Your task to perform on an android device: find snoozed emails in the gmail app Image 0: 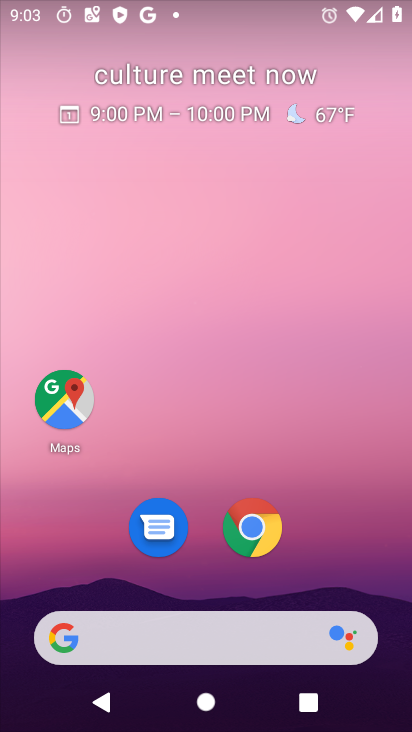
Step 0: drag from (229, 726) to (206, 157)
Your task to perform on an android device: find snoozed emails in the gmail app Image 1: 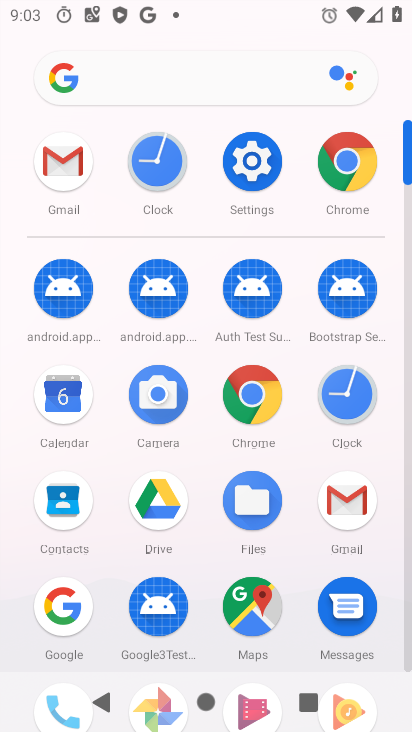
Step 1: click (347, 511)
Your task to perform on an android device: find snoozed emails in the gmail app Image 2: 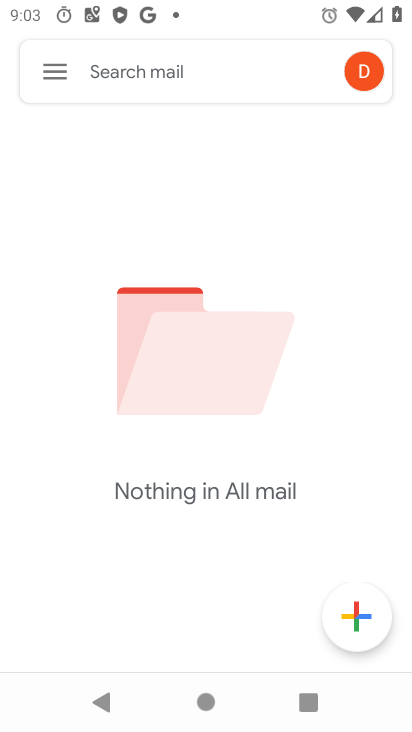
Step 2: click (58, 70)
Your task to perform on an android device: find snoozed emails in the gmail app Image 3: 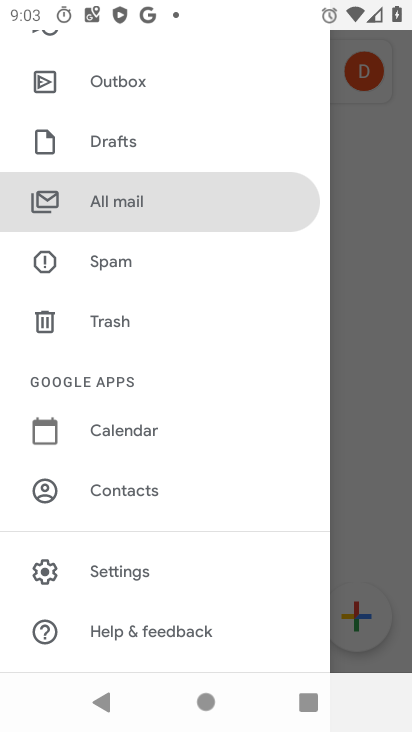
Step 3: drag from (162, 132) to (160, 480)
Your task to perform on an android device: find snoozed emails in the gmail app Image 4: 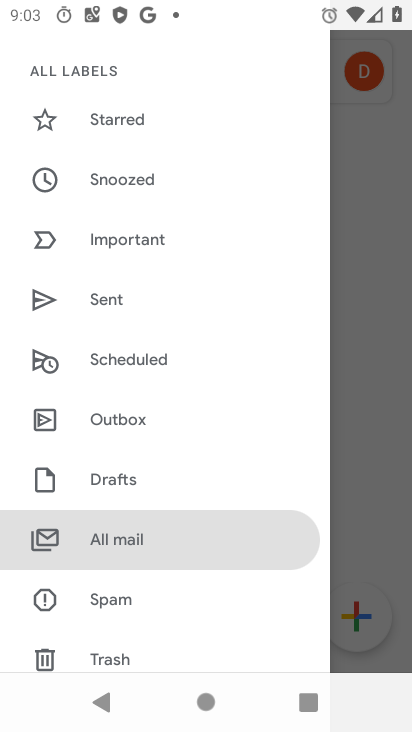
Step 4: click (116, 175)
Your task to perform on an android device: find snoozed emails in the gmail app Image 5: 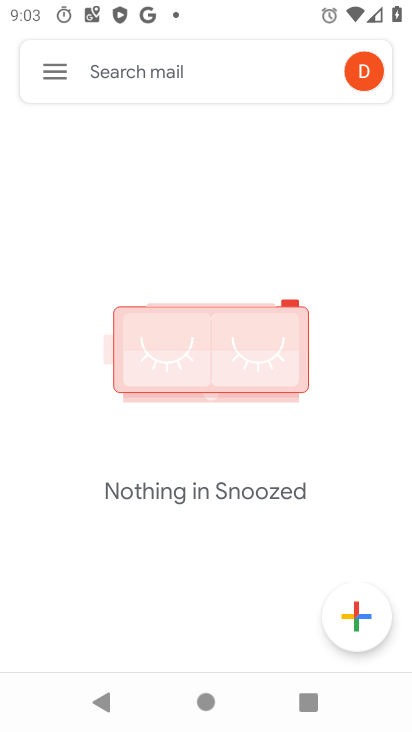
Step 5: task complete